Your task to perform on an android device: Go to calendar. Show me events next week Image 0: 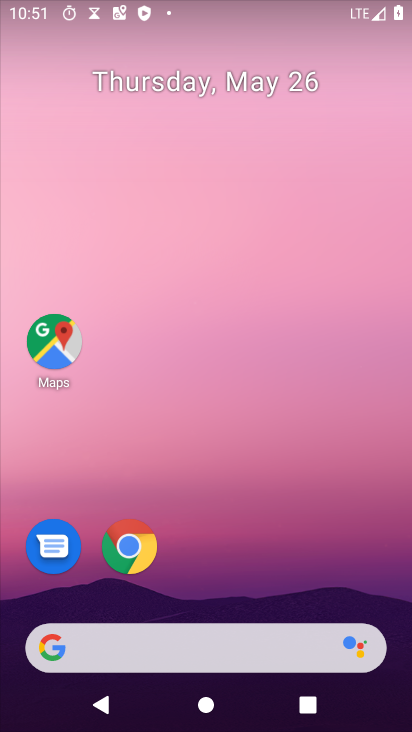
Step 0: drag from (332, 514) to (342, 179)
Your task to perform on an android device: Go to calendar. Show me events next week Image 1: 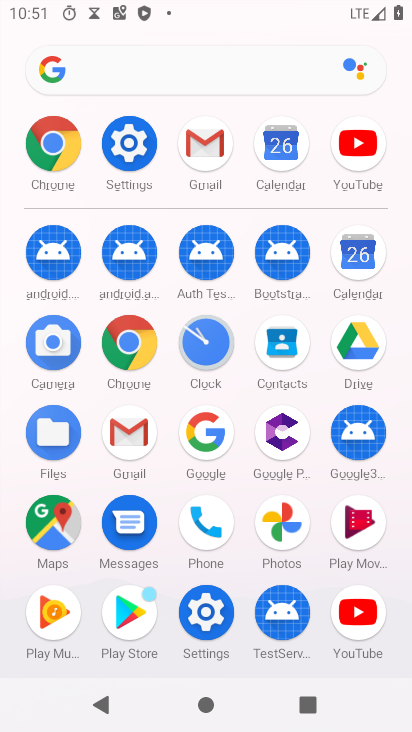
Step 1: click (360, 260)
Your task to perform on an android device: Go to calendar. Show me events next week Image 2: 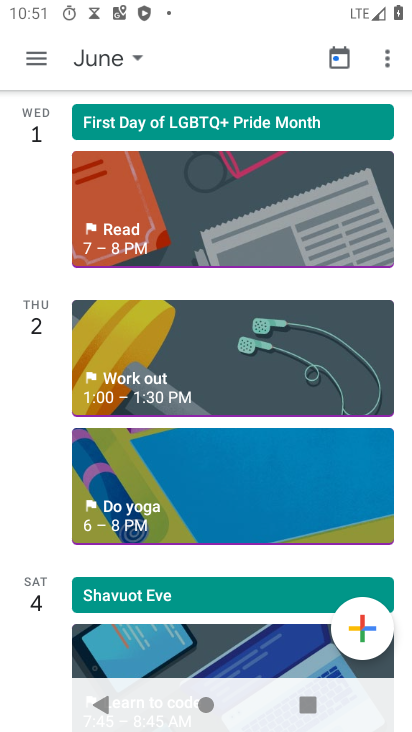
Step 2: click (92, 52)
Your task to perform on an android device: Go to calendar. Show me events next week Image 3: 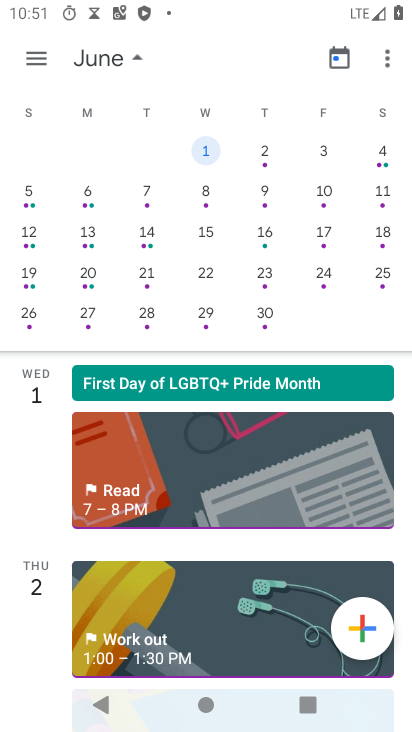
Step 3: drag from (61, 244) to (379, 250)
Your task to perform on an android device: Go to calendar. Show me events next week Image 4: 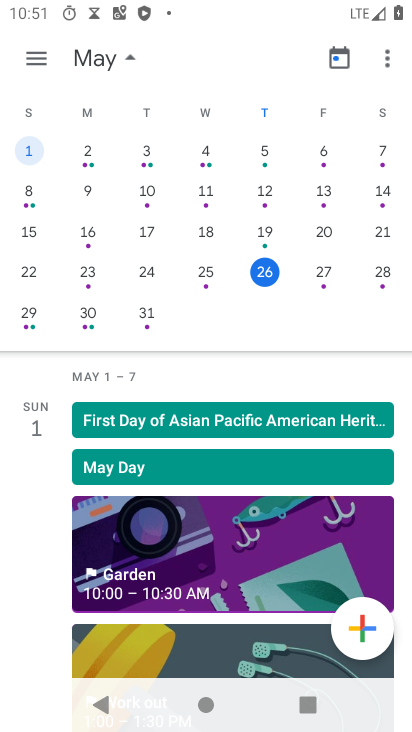
Step 4: click (322, 275)
Your task to perform on an android device: Go to calendar. Show me events next week Image 5: 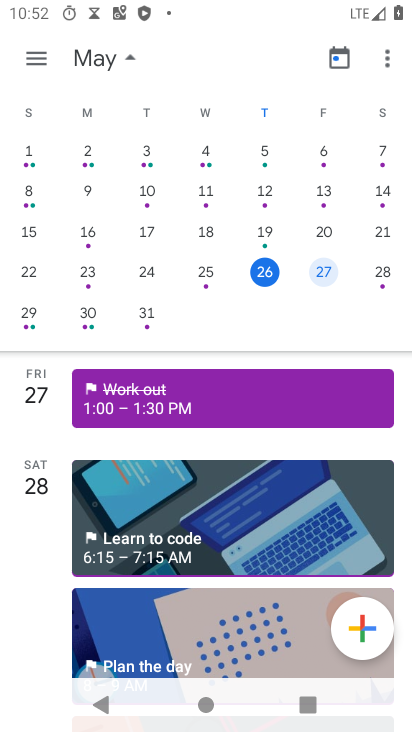
Step 5: task complete